Your task to perform on an android device: Open Google Image 0: 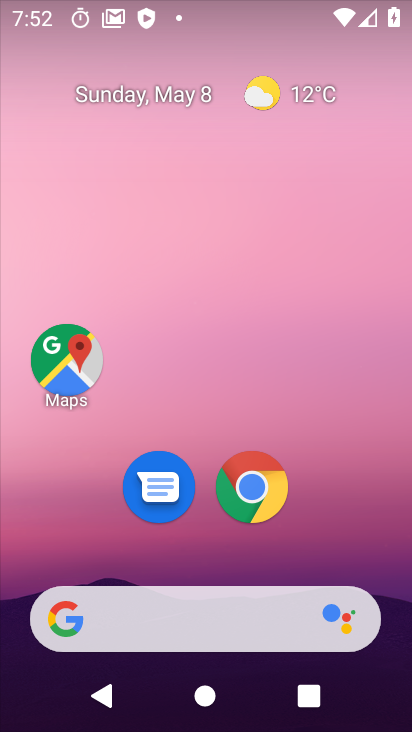
Step 0: drag from (230, 545) to (226, 73)
Your task to perform on an android device: Open Google Image 1: 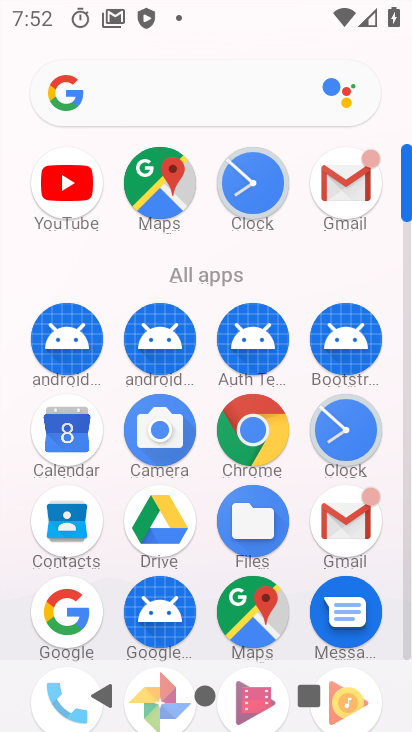
Step 1: click (55, 604)
Your task to perform on an android device: Open Google Image 2: 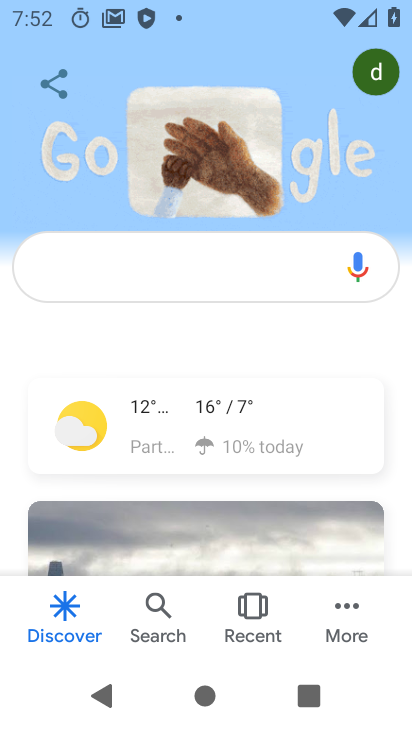
Step 2: task complete